Your task to perform on an android device: search for starred emails in the gmail app Image 0: 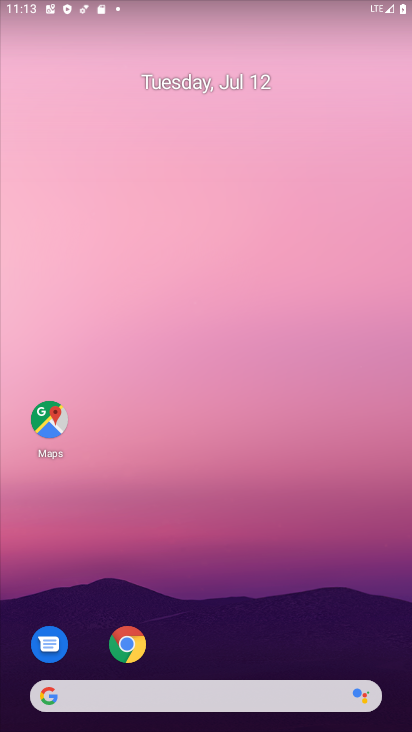
Step 0: click (402, 588)
Your task to perform on an android device: search for starred emails in the gmail app Image 1: 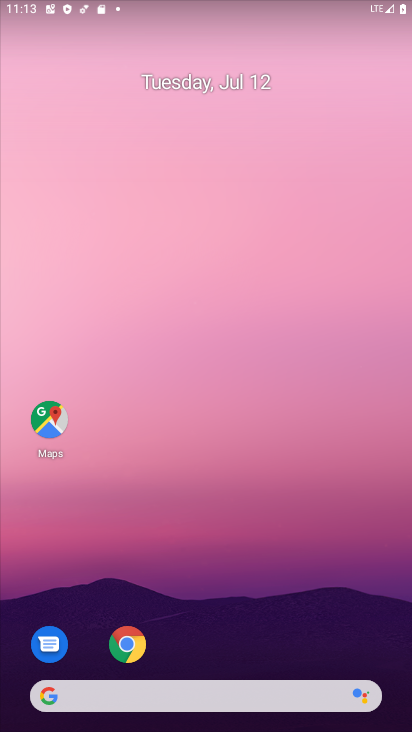
Step 1: drag from (201, 688) to (308, 156)
Your task to perform on an android device: search for starred emails in the gmail app Image 2: 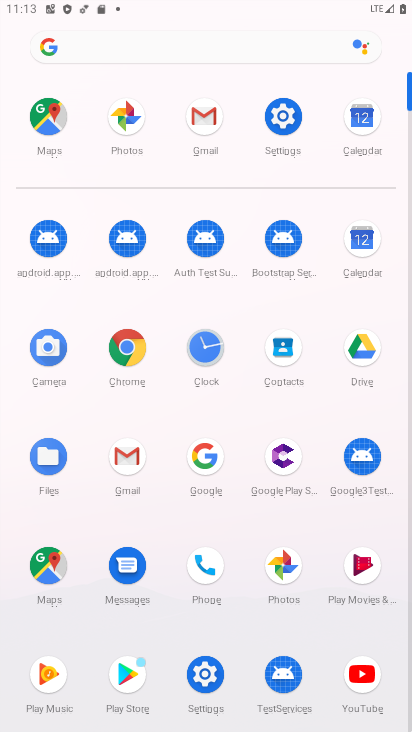
Step 2: click (203, 125)
Your task to perform on an android device: search for starred emails in the gmail app Image 3: 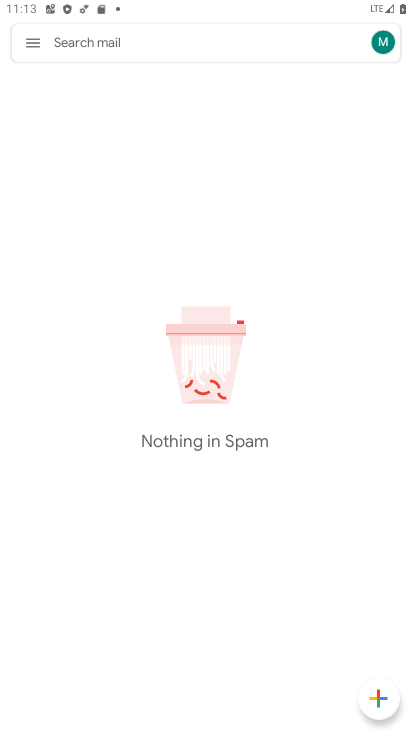
Step 3: click (28, 45)
Your task to perform on an android device: search for starred emails in the gmail app Image 4: 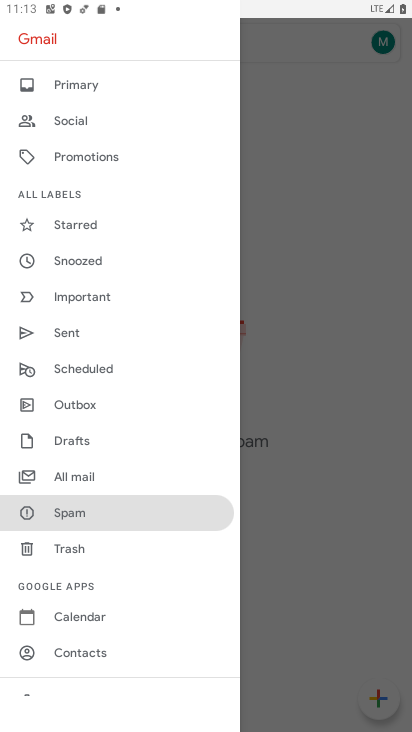
Step 4: click (81, 220)
Your task to perform on an android device: search for starred emails in the gmail app Image 5: 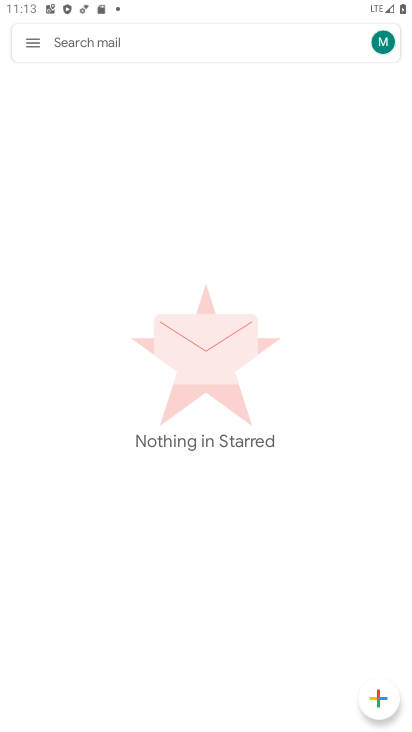
Step 5: task complete